Your task to perform on an android device: change the upload size in google photos Image 0: 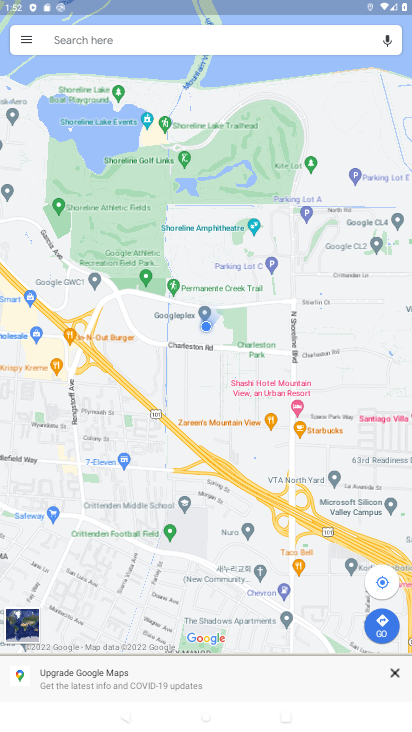
Step 0: press home button
Your task to perform on an android device: change the upload size in google photos Image 1: 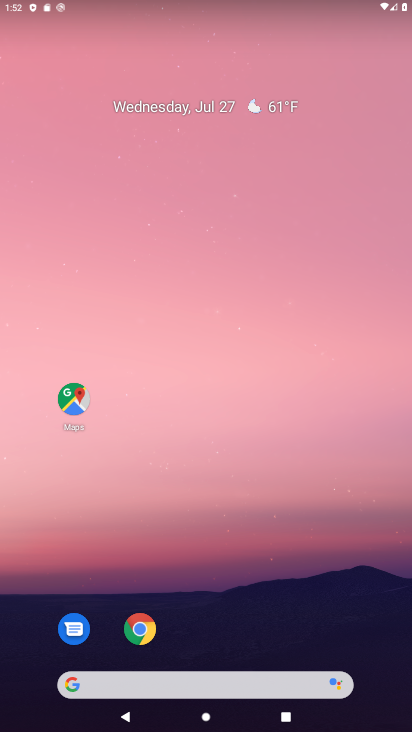
Step 1: drag from (143, 685) to (209, 83)
Your task to perform on an android device: change the upload size in google photos Image 2: 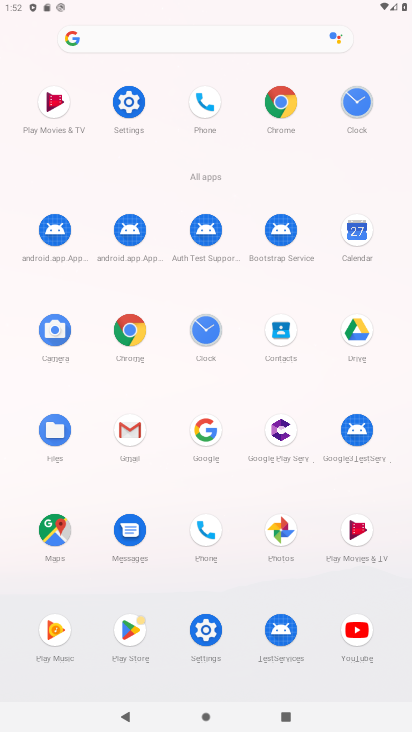
Step 2: click (282, 532)
Your task to perform on an android device: change the upload size in google photos Image 3: 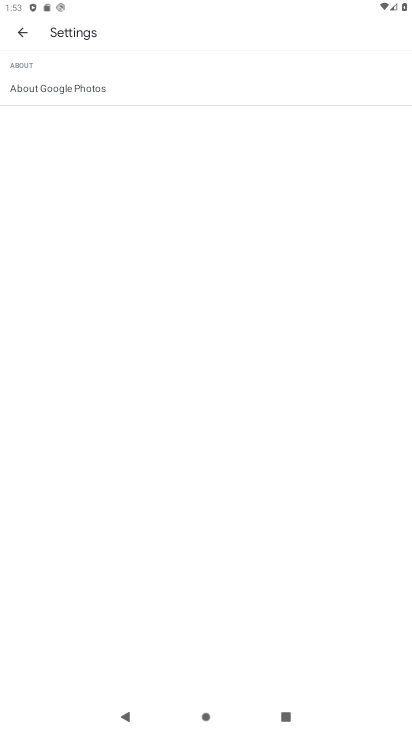
Step 3: press back button
Your task to perform on an android device: change the upload size in google photos Image 4: 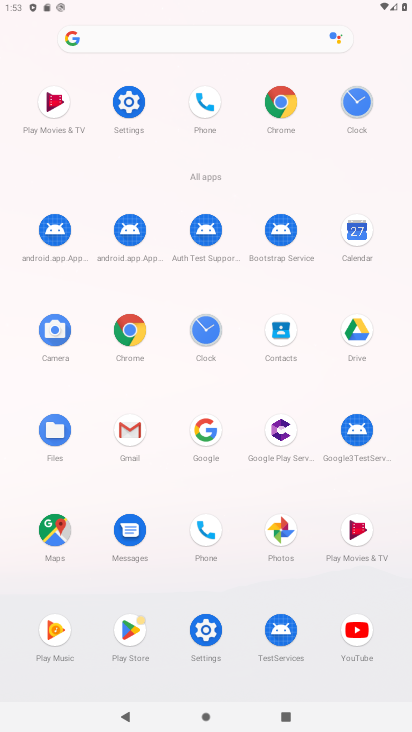
Step 4: click (281, 528)
Your task to perform on an android device: change the upload size in google photos Image 5: 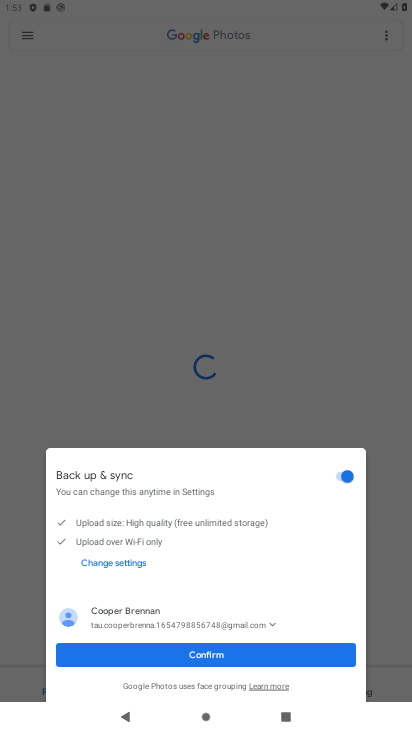
Step 5: click (213, 657)
Your task to perform on an android device: change the upload size in google photos Image 6: 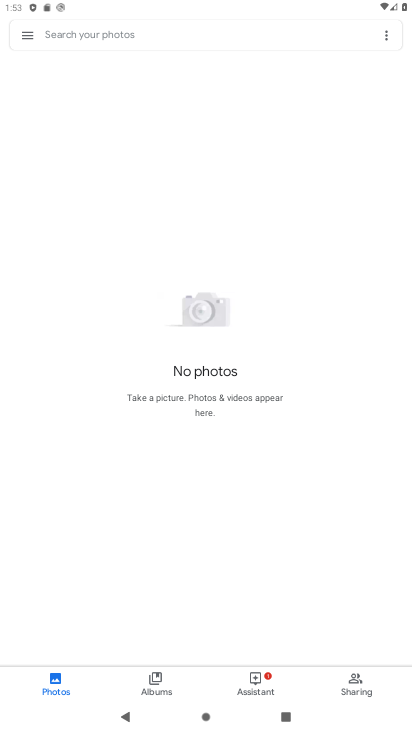
Step 6: click (26, 34)
Your task to perform on an android device: change the upload size in google photos Image 7: 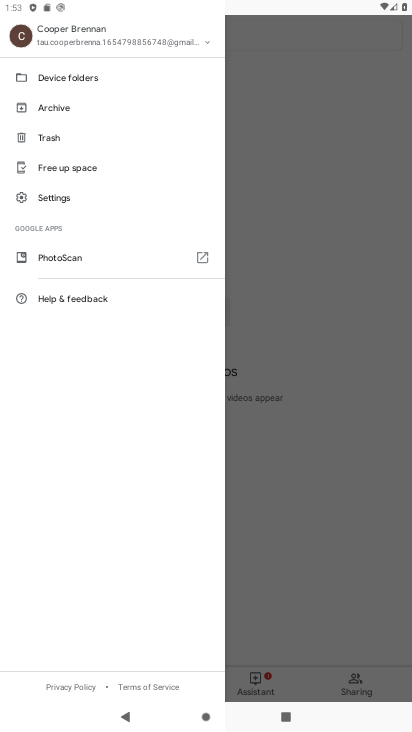
Step 7: click (59, 197)
Your task to perform on an android device: change the upload size in google photos Image 8: 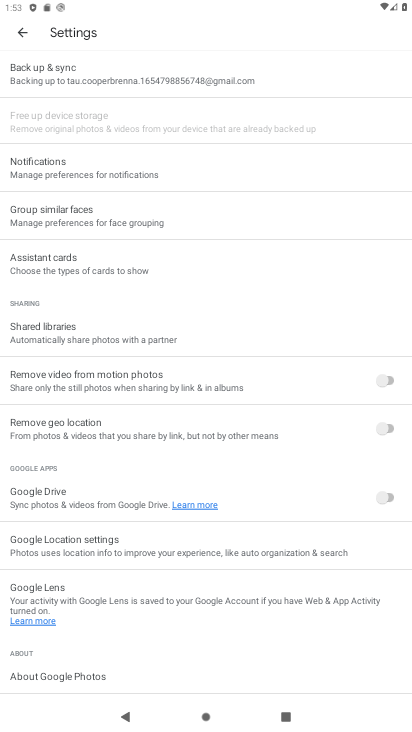
Step 8: click (109, 76)
Your task to perform on an android device: change the upload size in google photos Image 9: 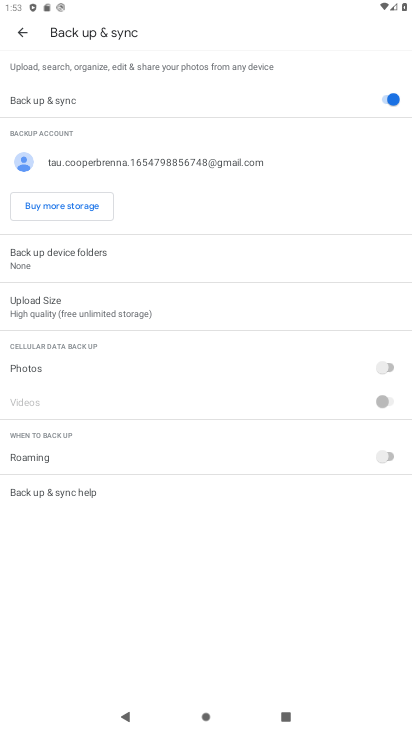
Step 9: click (72, 310)
Your task to perform on an android device: change the upload size in google photos Image 10: 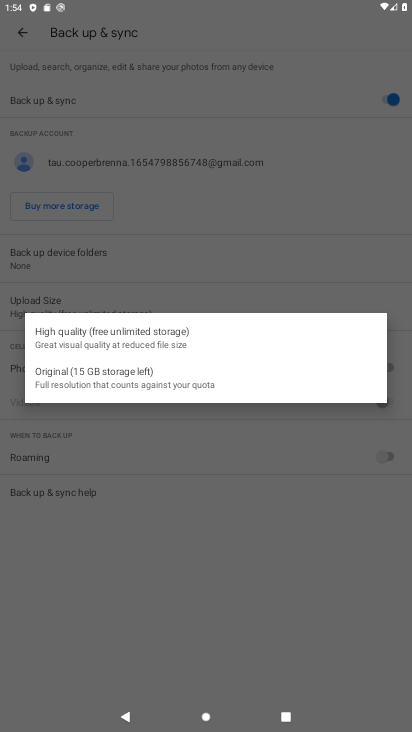
Step 10: click (79, 378)
Your task to perform on an android device: change the upload size in google photos Image 11: 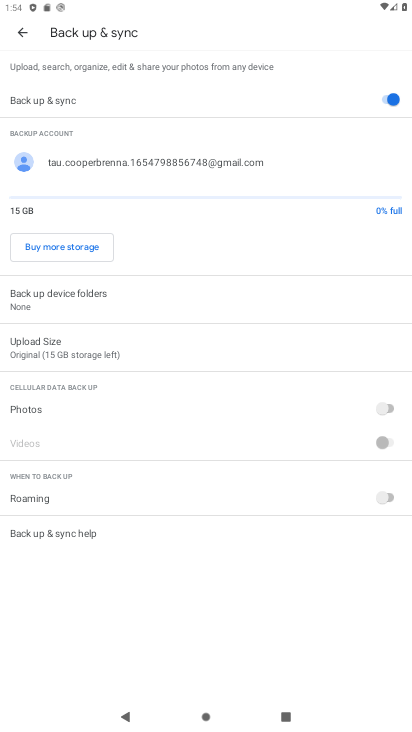
Step 11: task complete